Your task to perform on an android device: see tabs open on other devices in the chrome app Image 0: 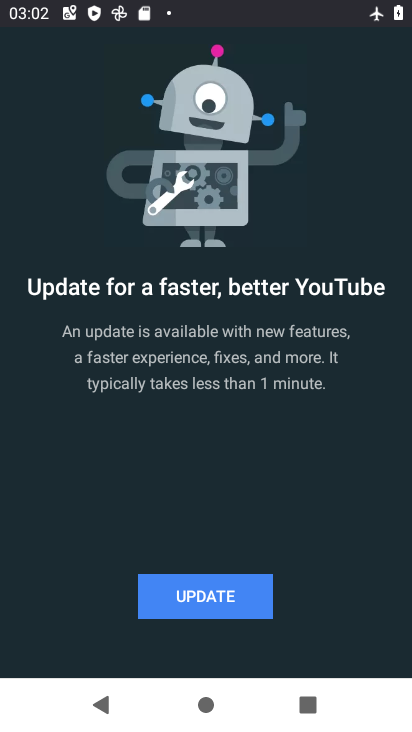
Step 0: press home button
Your task to perform on an android device: see tabs open on other devices in the chrome app Image 1: 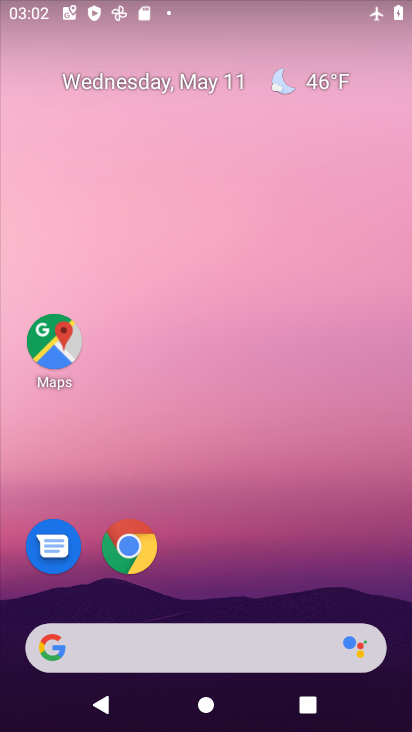
Step 1: drag from (237, 579) to (258, 290)
Your task to perform on an android device: see tabs open on other devices in the chrome app Image 2: 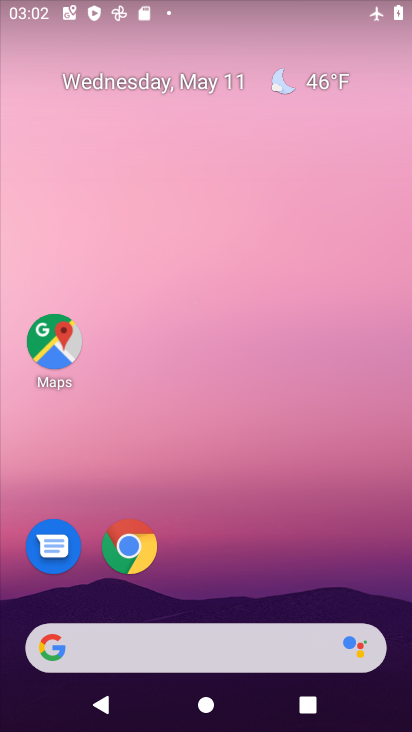
Step 2: drag from (204, 577) to (264, 242)
Your task to perform on an android device: see tabs open on other devices in the chrome app Image 3: 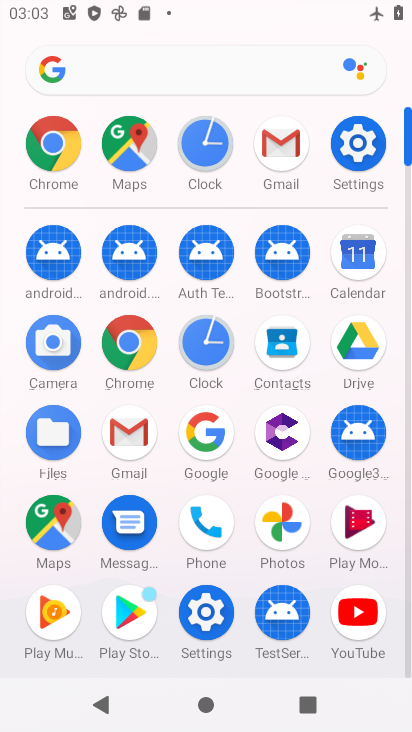
Step 3: click (125, 334)
Your task to perform on an android device: see tabs open on other devices in the chrome app Image 4: 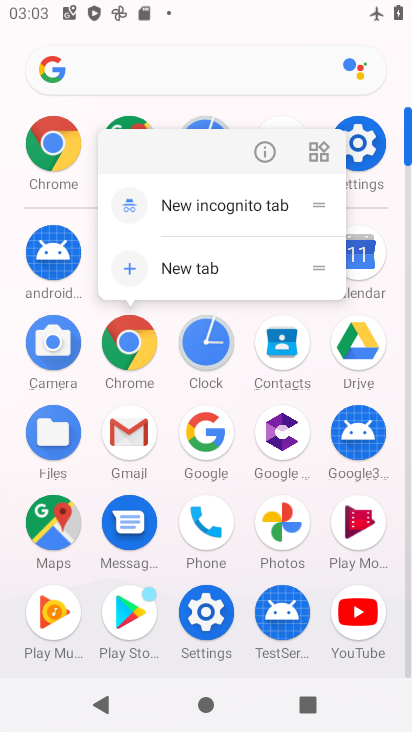
Step 4: click (259, 155)
Your task to perform on an android device: see tabs open on other devices in the chrome app Image 5: 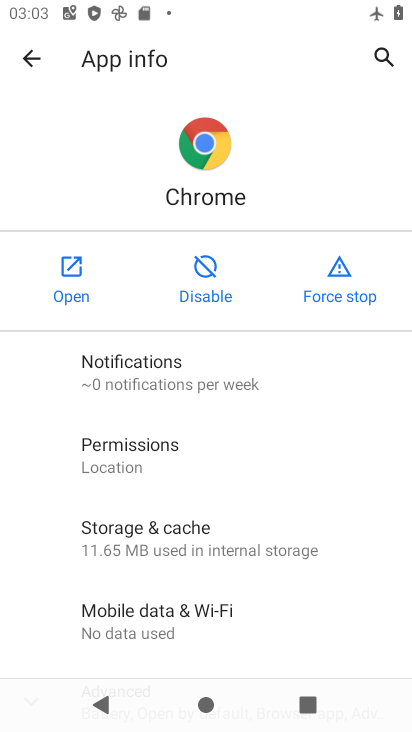
Step 5: click (73, 270)
Your task to perform on an android device: see tabs open on other devices in the chrome app Image 6: 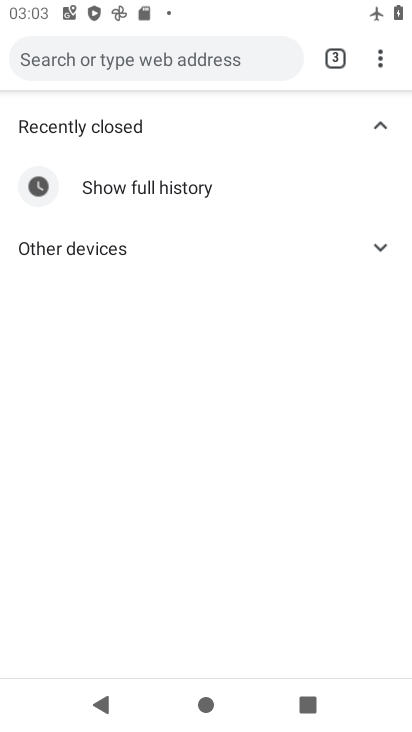
Step 6: drag from (377, 65) to (222, 276)
Your task to perform on an android device: see tabs open on other devices in the chrome app Image 7: 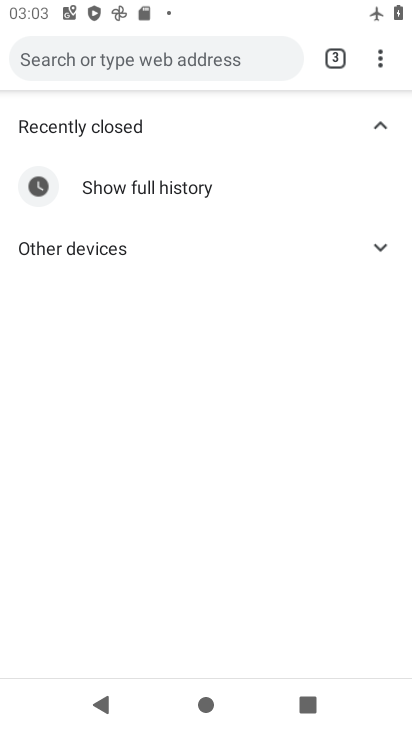
Step 7: drag from (202, 456) to (289, 243)
Your task to perform on an android device: see tabs open on other devices in the chrome app Image 8: 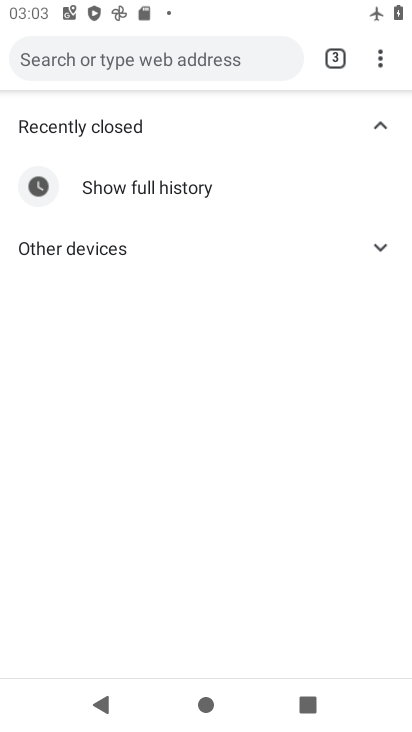
Step 8: click (162, 251)
Your task to perform on an android device: see tabs open on other devices in the chrome app Image 9: 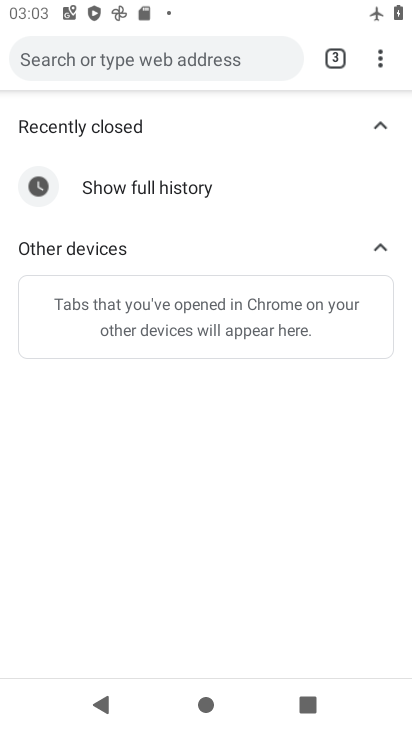
Step 9: task complete